Your task to perform on an android device: turn off picture-in-picture Image 0: 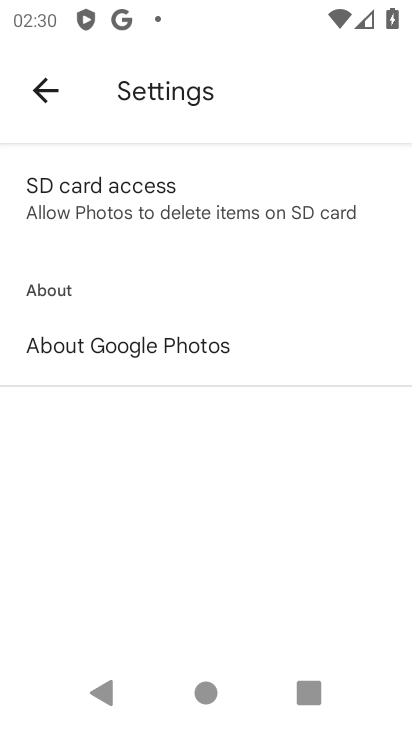
Step 0: press home button
Your task to perform on an android device: turn off picture-in-picture Image 1: 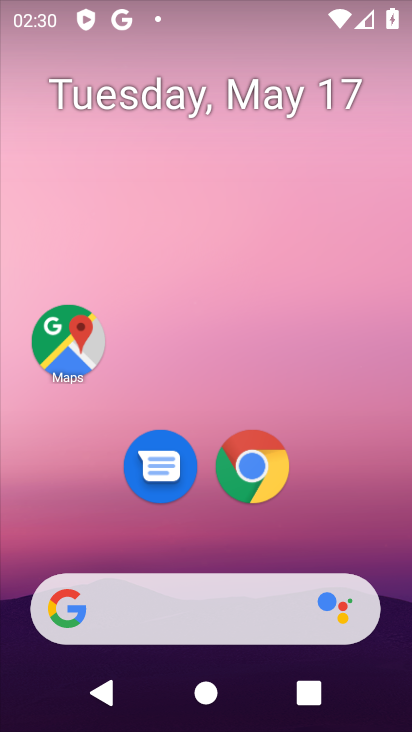
Step 1: click (264, 473)
Your task to perform on an android device: turn off picture-in-picture Image 2: 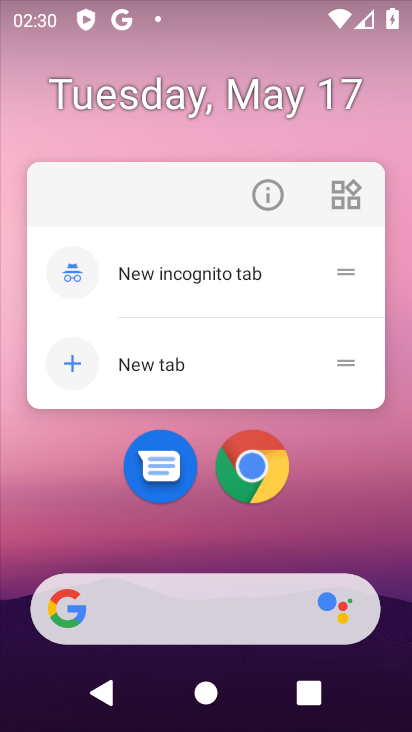
Step 2: click (266, 196)
Your task to perform on an android device: turn off picture-in-picture Image 3: 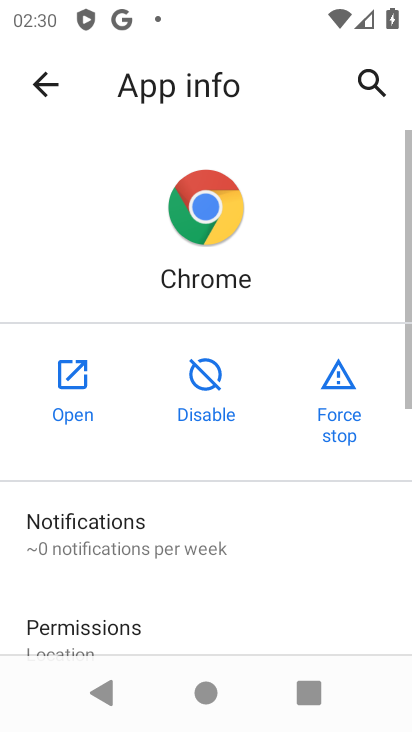
Step 3: drag from (193, 483) to (286, 64)
Your task to perform on an android device: turn off picture-in-picture Image 4: 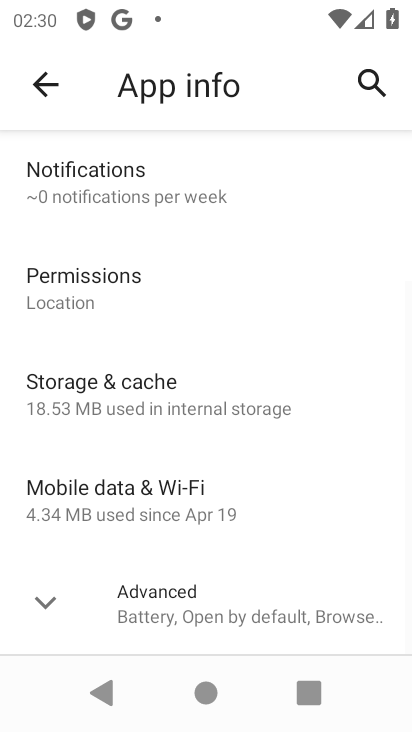
Step 4: drag from (178, 515) to (324, 108)
Your task to perform on an android device: turn off picture-in-picture Image 5: 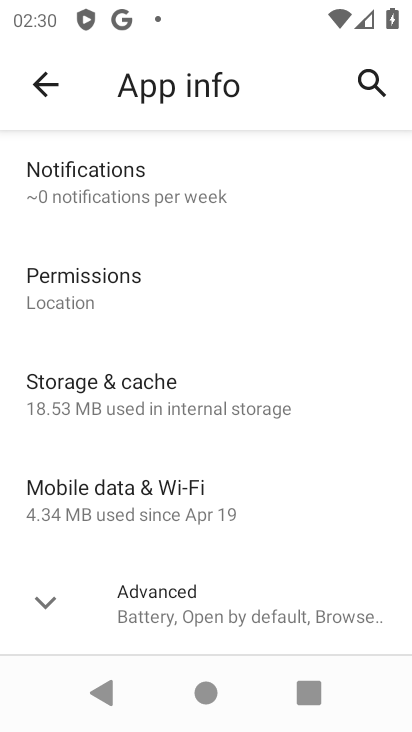
Step 5: click (166, 597)
Your task to perform on an android device: turn off picture-in-picture Image 6: 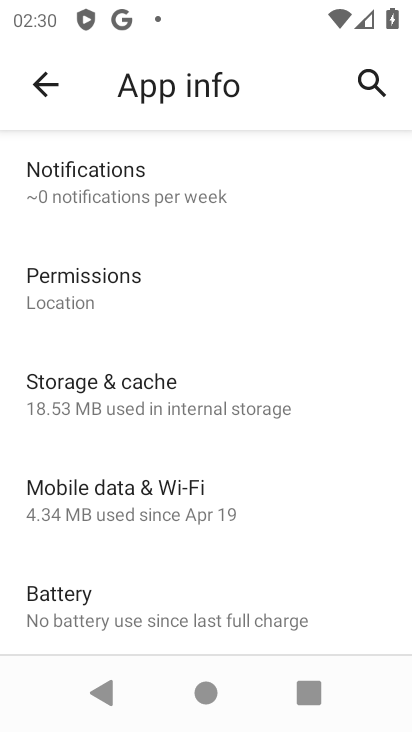
Step 6: drag from (183, 596) to (315, 189)
Your task to perform on an android device: turn off picture-in-picture Image 7: 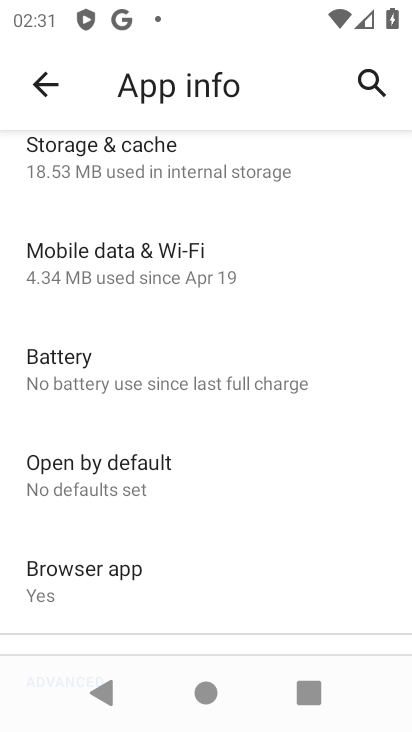
Step 7: drag from (181, 534) to (337, 113)
Your task to perform on an android device: turn off picture-in-picture Image 8: 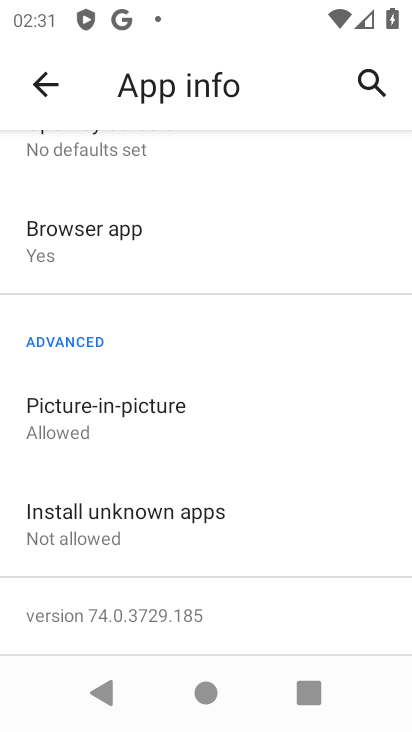
Step 8: click (139, 411)
Your task to perform on an android device: turn off picture-in-picture Image 9: 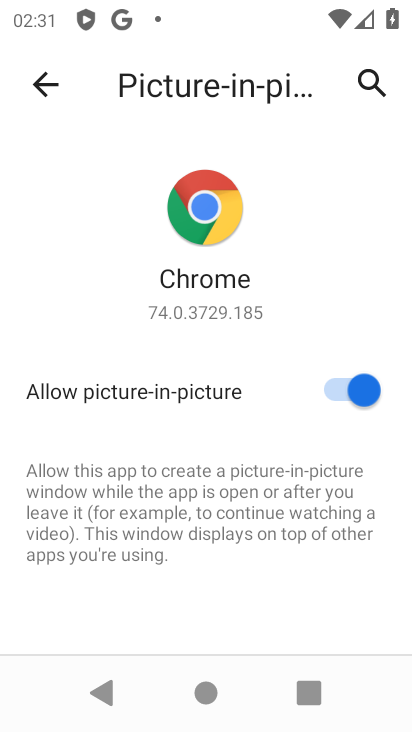
Step 9: click (342, 391)
Your task to perform on an android device: turn off picture-in-picture Image 10: 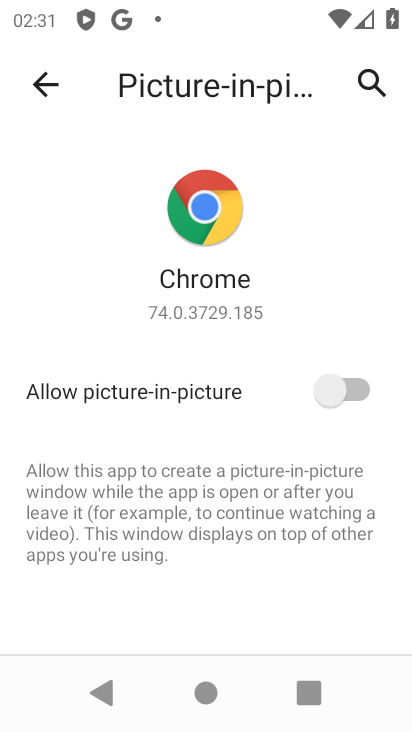
Step 10: task complete